Your task to perform on an android device: Empty the shopping cart on newegg.com. Search for "macbook air" on newegg.com, select the first entry, and add it to the cart. Image 0: 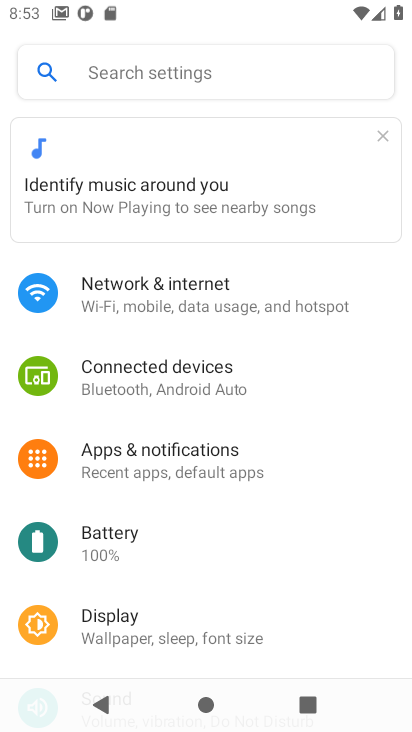
Step 0: press home button
Your task to perform on an android device: Empty the shopping cart on newegg.com. Search for "macbook air" on newegg.com, select the first entry, and add it to the cart. Image 1: 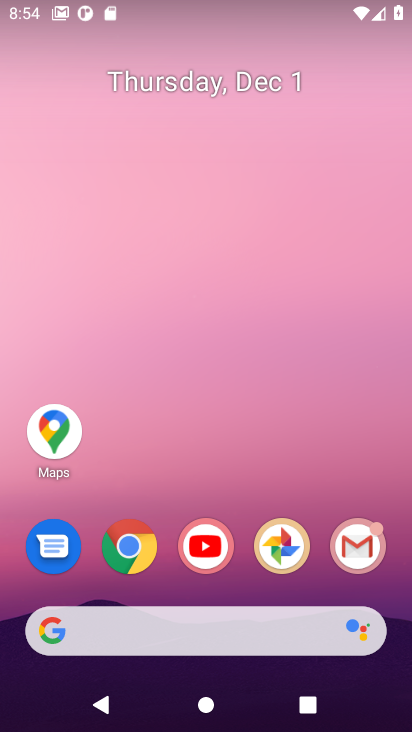
Step 1: click (132, 552)
Your task to perform on an android device: Empty the shopping cart on newegg.com. Search for "macbook air" on newegg.com, select the first entry, and add it to the cart. Image 2: 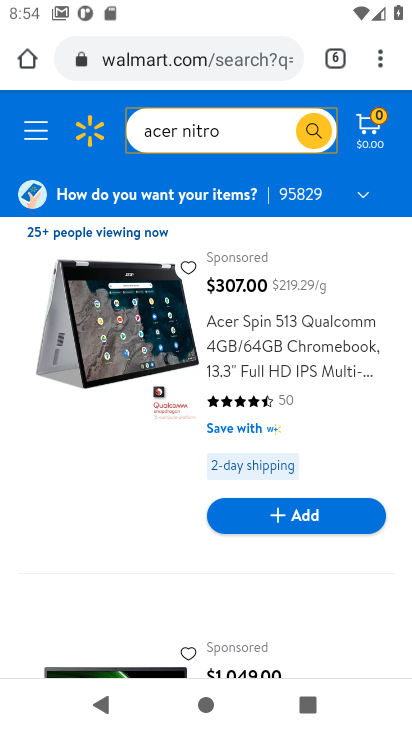
Step 2: click (191, 63)
Your task to perform on an android device: Empty the shopping cart on newegg.com. Search for "macbook air" on newegg.com, select the first entry, and add it to the cart. Image 3: 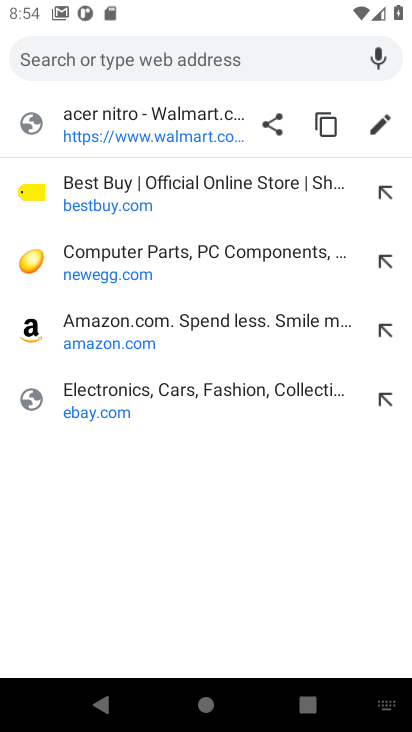
Step 3: click (86, 267)
Your task to perform on an android device: Empty the shopping cart on newegg.com. Search for "macbook air" on newegg.com, select the first entry, and add it to the cart. Image 4: 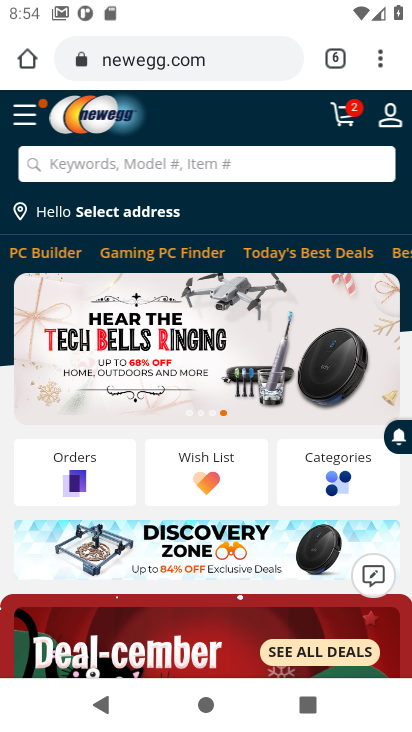
Step 4: click (342, 114)
Your task to perform on an android device: Empty the shopping cart on newegg.com. Search for "macbook air" on newegg.com, select the first entry, and add it to the cart. Image 5: 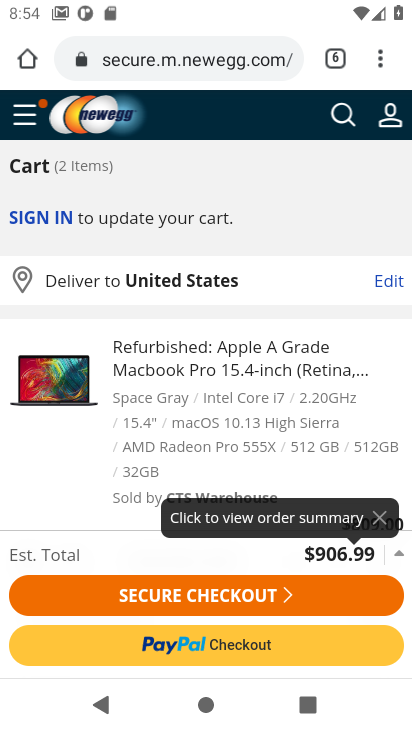
Step 5: drag from (159, 411) to (132, 206)
Your task to perform on an android device: Empty the shopping cart on newegg.com. Search for "macbook air" on newegg.com, select the first entry, and add it to the cart. Image 6: 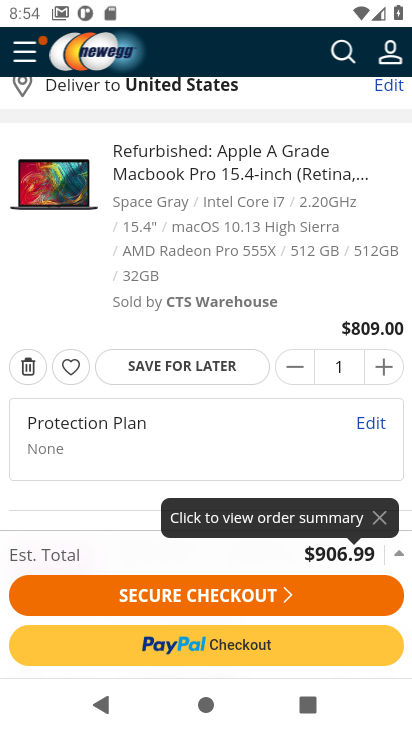
Step 6: click (23, 377)
Your task to perform on an android device: Empty the shopping cart on newegg.com. Search for "macbook air" on newegg.com, select the first entry, and add it to the cart. Image 7: 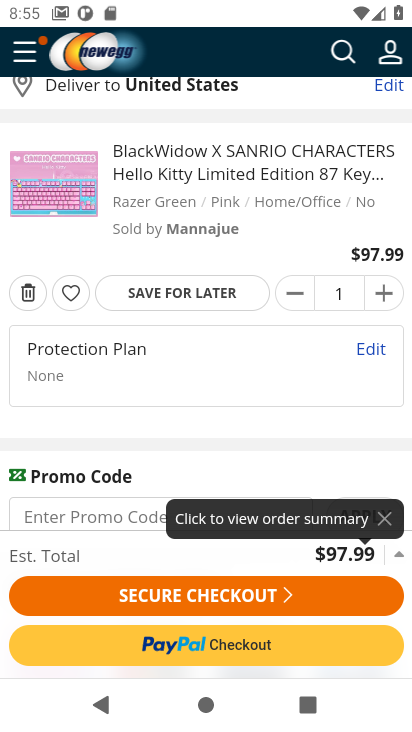
Step 7: click (29, 292)
Your task to perform on an android device: Empty the shopping cart on newegg.com. Search for "macbook air" on newegg.com, select the first entry, and add it to the cart. Image 8: 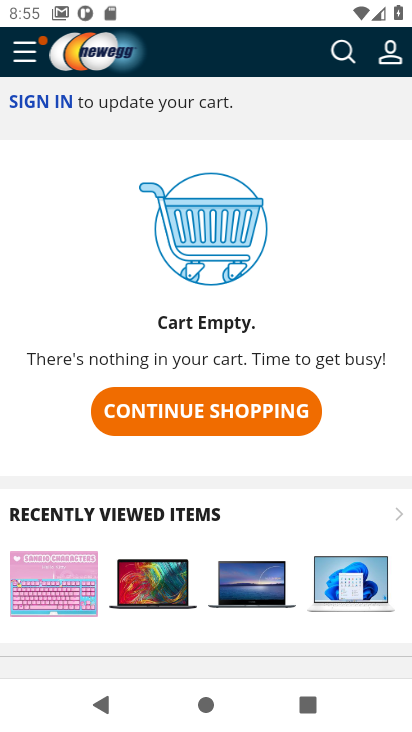
Step 8: click (348, 60)
Your task to perform on an android device: Empty the shopping cart on newegg.com. Search for "macbook air" on newegg.com, select the first entry, and add it to the cart. Image 9: 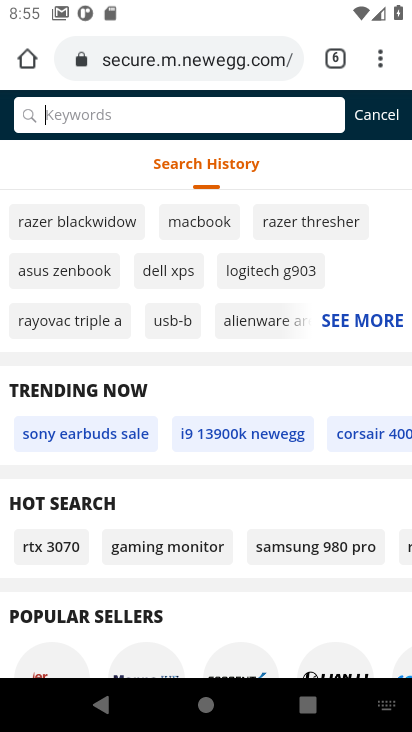
Step 9: type "macbook air"
Your task to perform on an android device: Empty the shopping cart on newegg.com. Search for "macbook air" on newegg.com, select the first entry, and add it to the cart. Image 10: 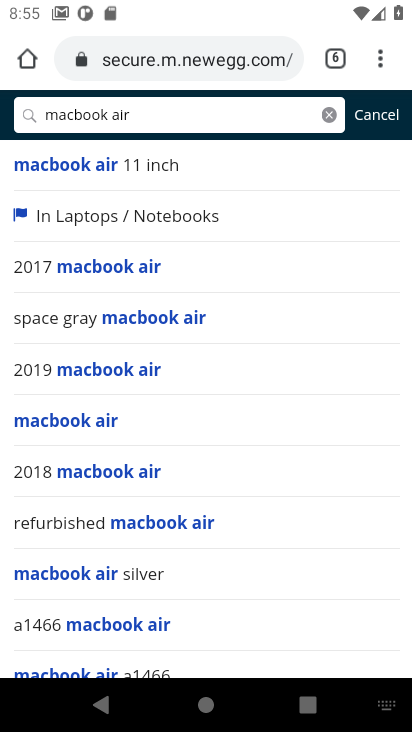
Step 10: click (38, 429)
Your task to perform on an android device: Empty the shopping cart on newegg.com. Search for "macbook air" on newegg.com, select the first entry, and add it to the cart. Image 11: 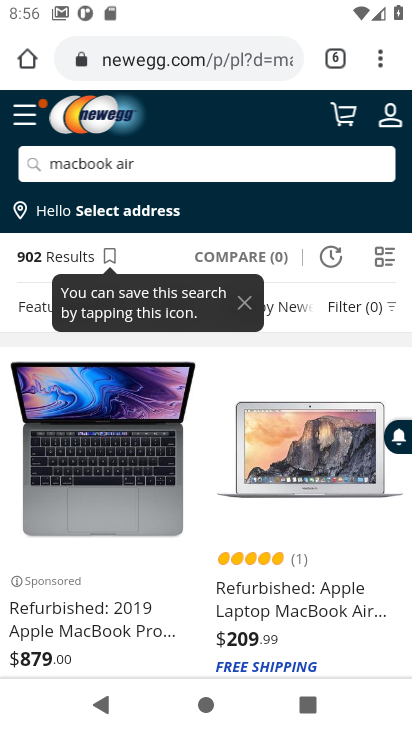
Step 11: task complete